Your task to perform on an android device: change timer sound Image 0: 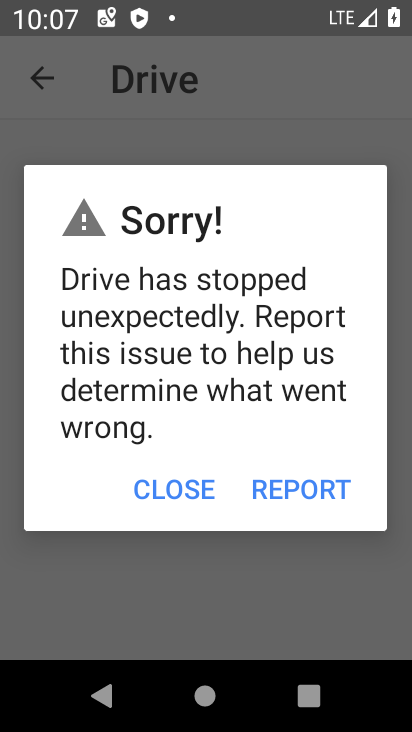
Step 0: press home button
Your task to perform on an android device: change timer sound Image 1: 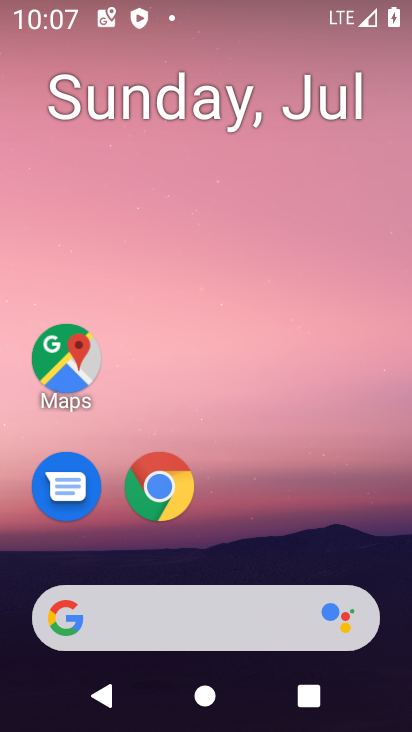
Step 1: drag from (377, 537) to (373, 58)
Your task to perform on an android device: change timer sound Image 2: 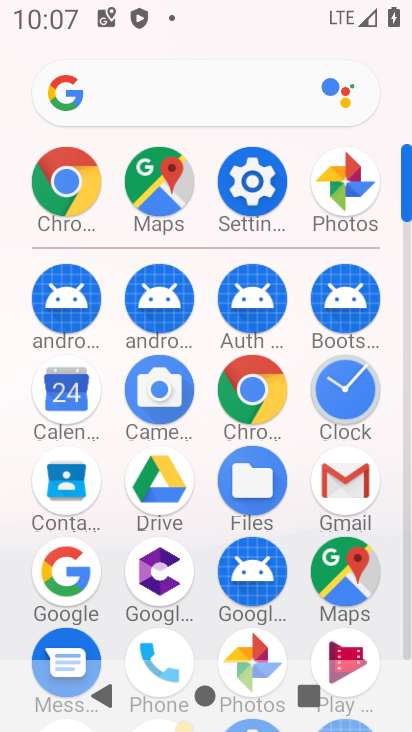
Step 2: click (349, 384)
Your task to perform on an android device: change timer sound Image 3: 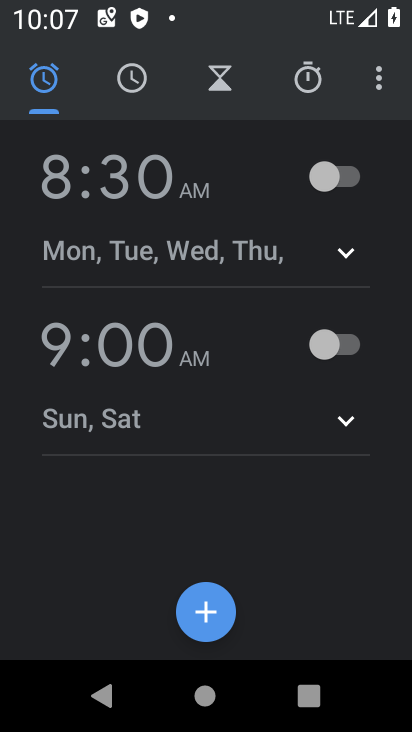
Step 3: click (383, 88)
Your task to perform on an android device: change timer sound Image 4: 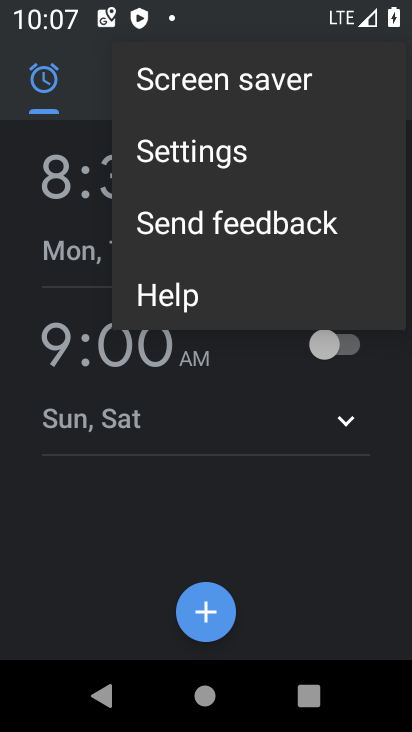
Step 4: click (245, 161)
Your task to perform on an android device: change timer sound Image 5: 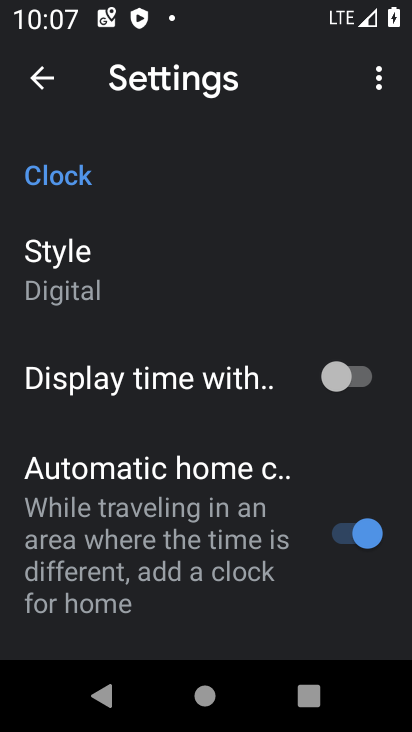
Step 5: drag from (284, 423) to (283, 330)
Your task to perform on an android device: change timer sound Image 6: 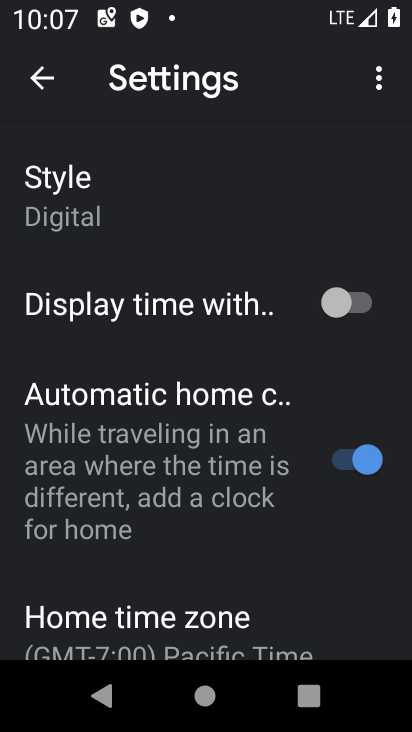
Step 6: drag from (298, 504) to (298, 406)
Your task to perform on an android device: change timer sound Image 7: 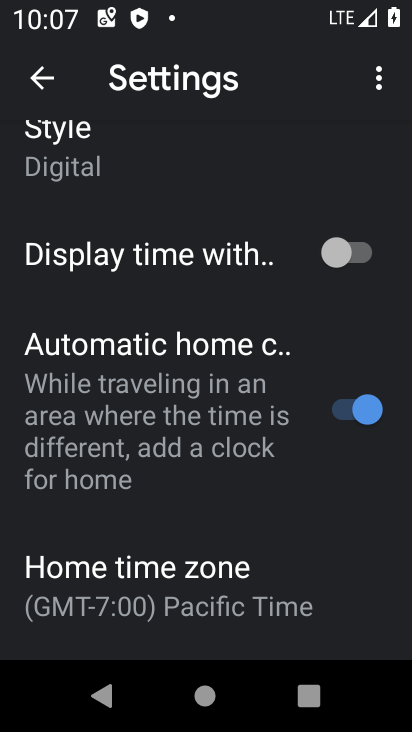
Step 7: drag from (295, 520) to (308, 426)
Your task to perform on an android device: change timer sound Image 8: 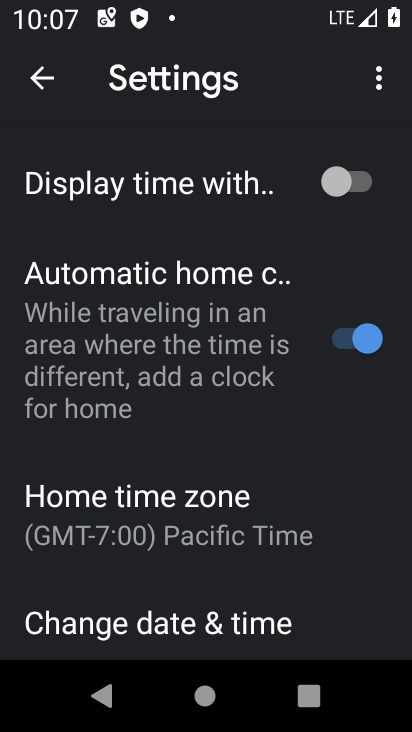
Step 8: drag from (304, 559) to (309, 449)
Your task to perform on an android device: change timer sound Image 9: 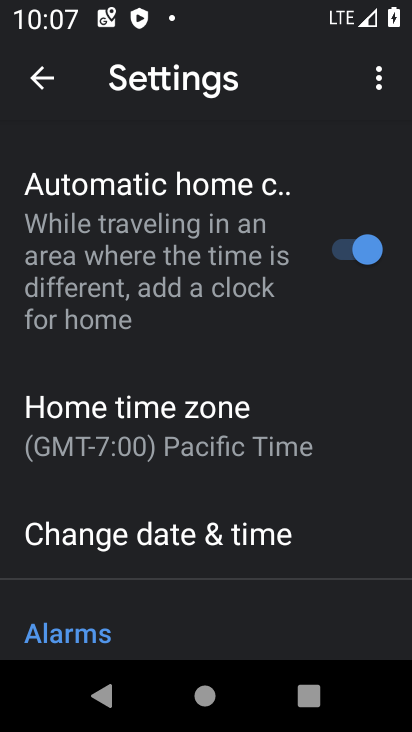
Step 9: drag from (311, 568) to (311, 441)
Your task to perform on an android device: change timer sound Image 10: 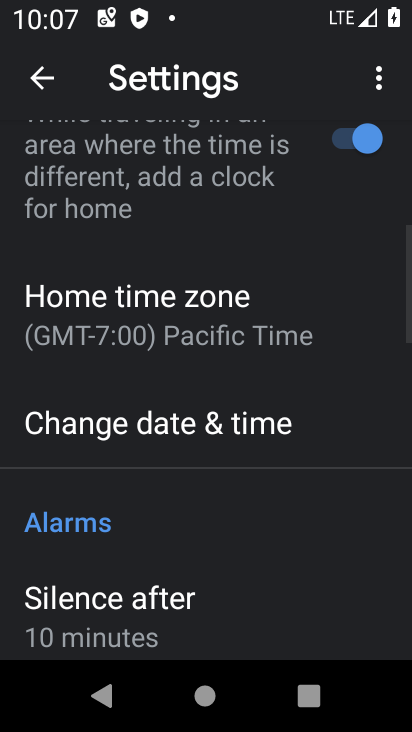
Step 10: drag from (299, 572) to (309, 442)
Your task to perform on an android device: change timer sound Image 11: 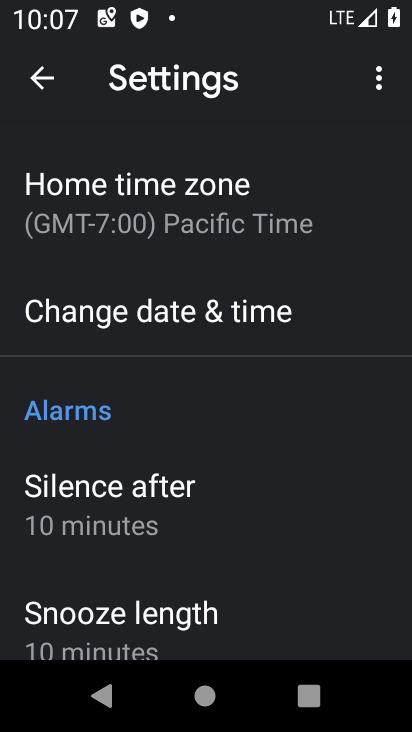
Step 11: drag from (332, 546) to (331, 410)
Your task to perform on an android device: change timer sound Image 12: 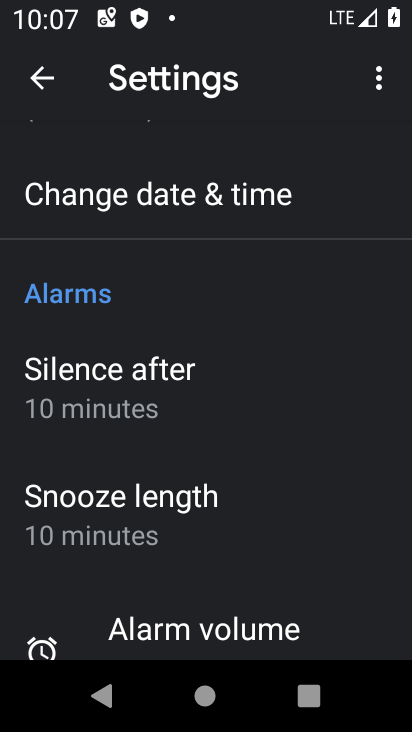
Step 12: drag from (333, 275) to (336, 411)
Your task to perform on an android device: change timer sound Image 13: 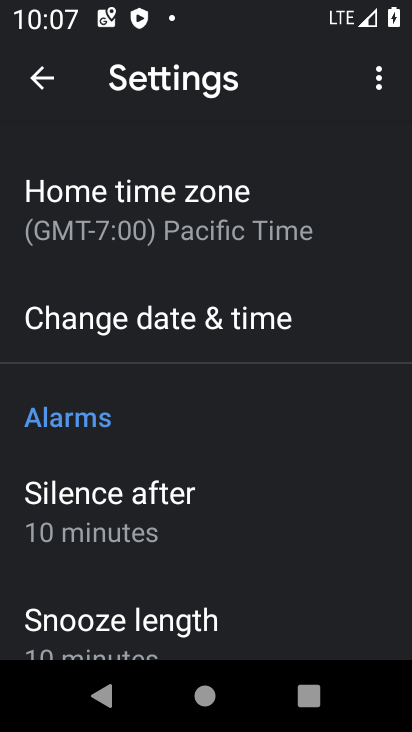
Step 13: drag from (333, 216) to (336, 341)
Your task to perform on an android device: change timer sound Image 14: 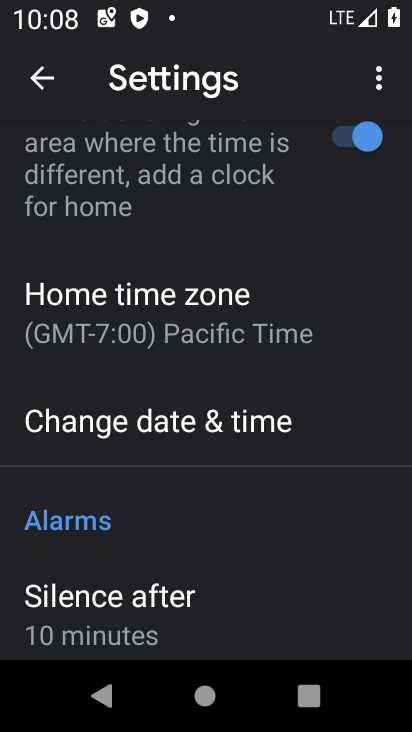
Step 14: drag from (320, 182) to (326, 329)
Your task to perform on an android device: change timer sound Image 15: 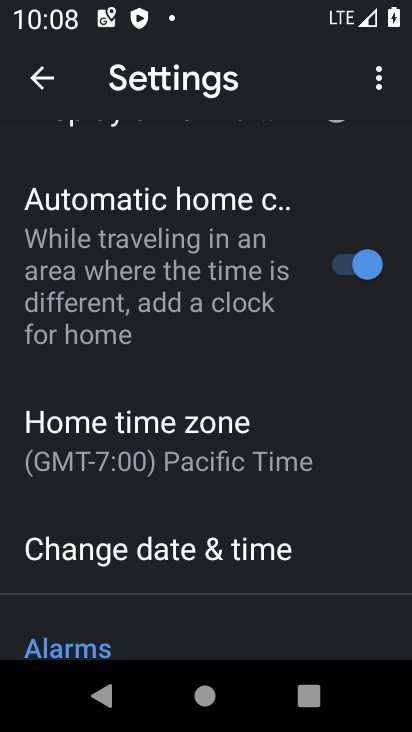
Step 15: drag from (310, 161) to (308, 342)
Your task to perform on an android device: change timer sound Image 16: 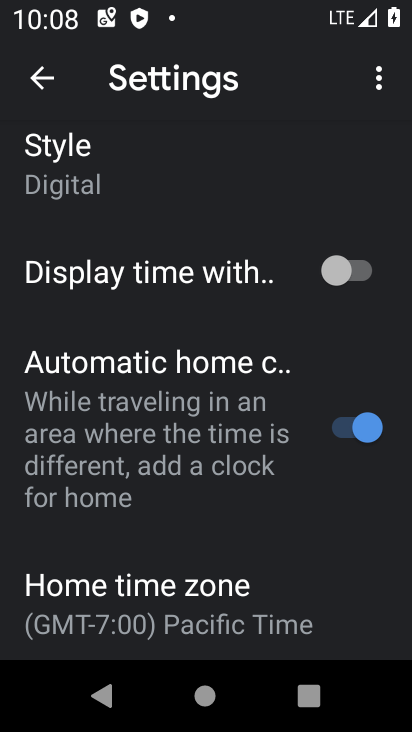
Step 16: drag from (250, 168) to (252, 275)
Your task to perform on an android device: change timer sound Image 17: 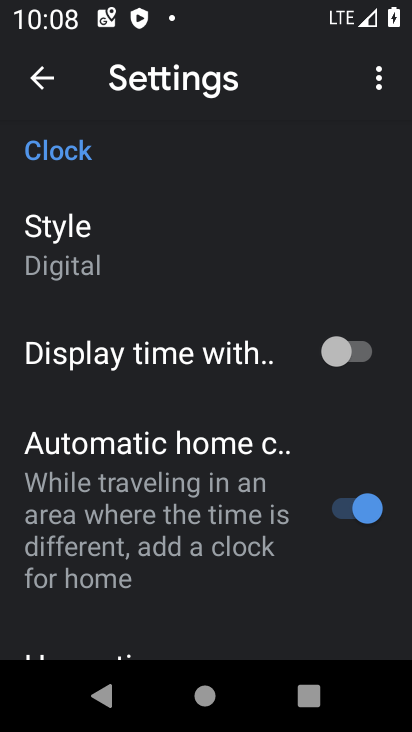
Step 17: drag from (260, 423) to (264, 280)
Your task to perform on an android device: change timer sound Image 18: 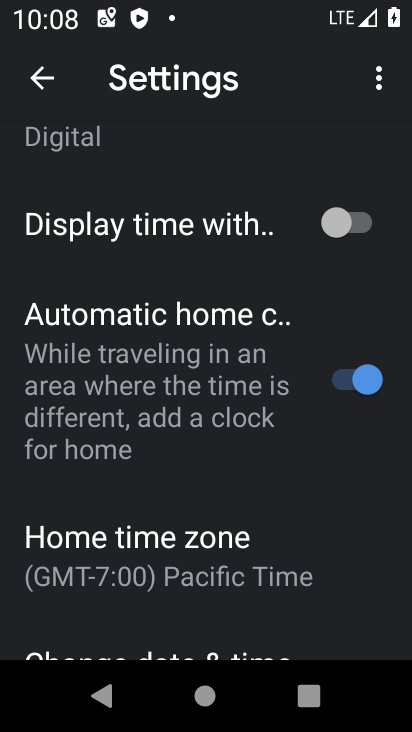
Step 18: drag from (258, 477) to (267, 354)
Your task to perform on an android device: change timer sound Image 19: 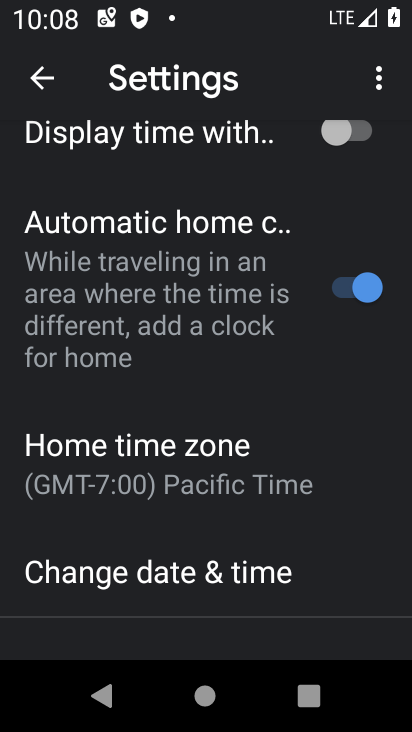
Step 19: drag from (269, 523) to (283, 362)
Your task to perform on an android device: change timer sound Image 20: 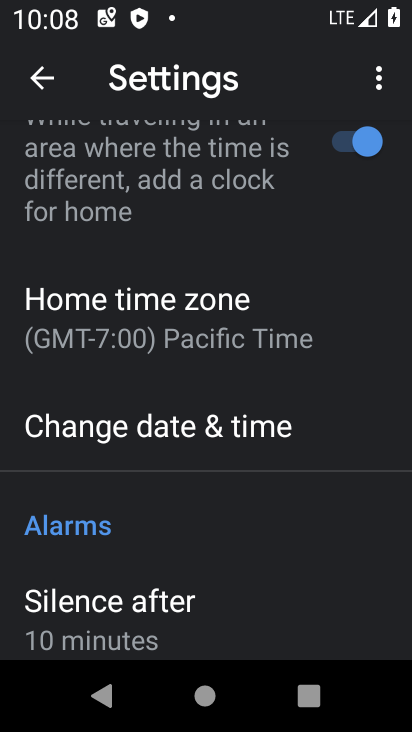
Step 20: drag from (277, 552) to (286, 388)
Your task to perform on an android device: change timer sound Image 21: 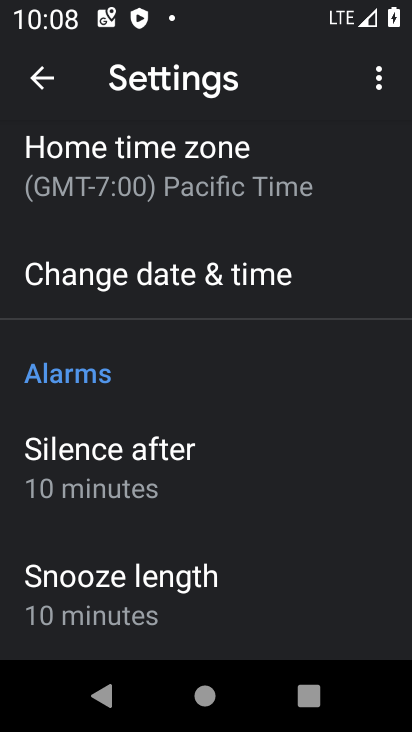
Step 21: drag from (287, 584) to (292, 413)
Your task to perform on an android device: change timer sound Image 22: 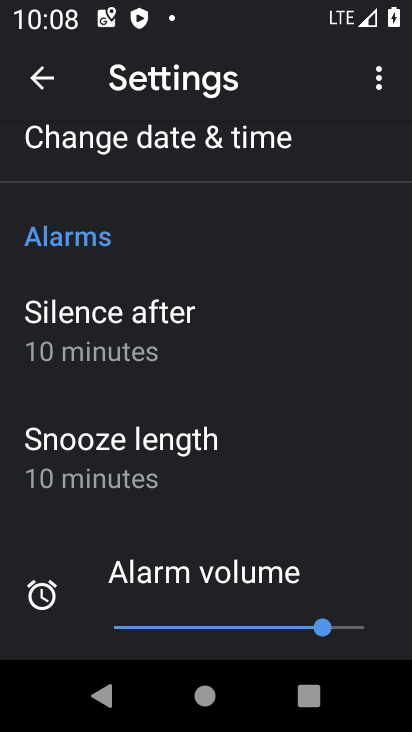
Step 22: drag from (319, 566) to (321, 323)
Your task to perform on an android device: change timer sound Image 23: 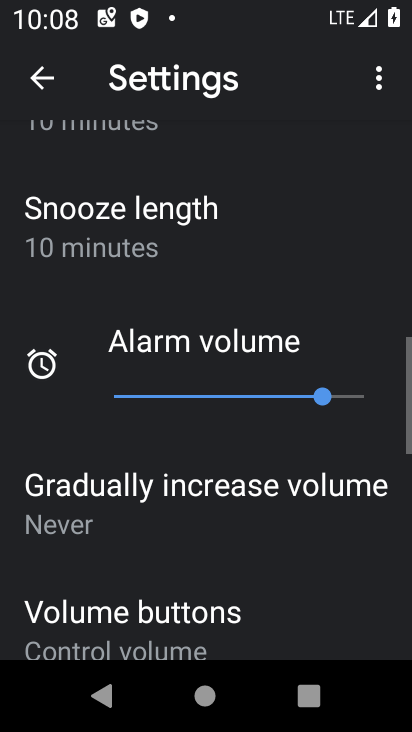
Step 23: drag from (320, 593) to (317, 387)
Your task to perform on an android device: change timer sound Image 24: 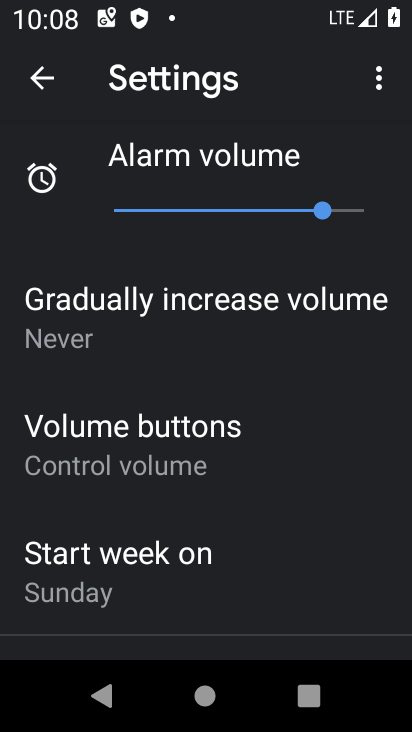
Step 24: drag from (306, 601) to (303, 331)
Your task to perform on an android device: change timer sound Image 25: 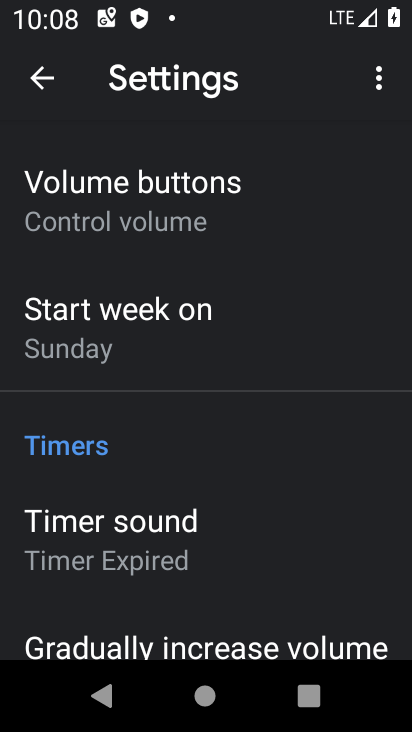
Step 25: click (288, 530)
Your task to perform on an android device: change timer sound Image 26: 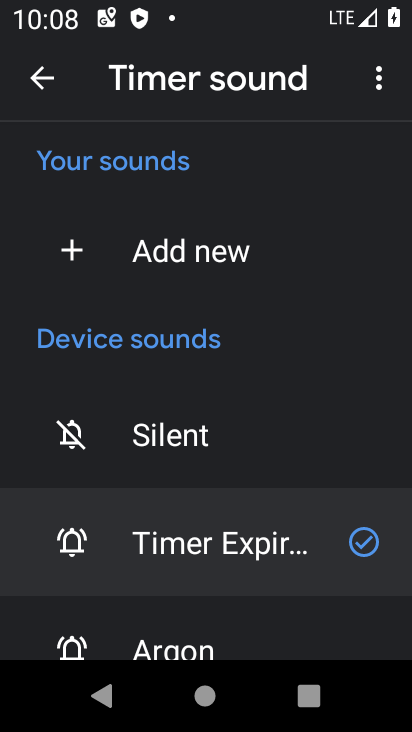
Step 26: click (204, 454)
Your task to perform on an android device: change timer sound Image 27: 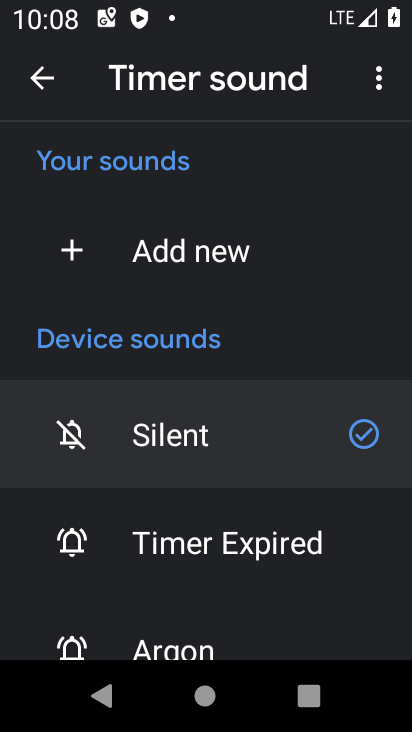
Step 27: task complete